Your task to perform on an android device: turn off improve location accuracy Image 0: 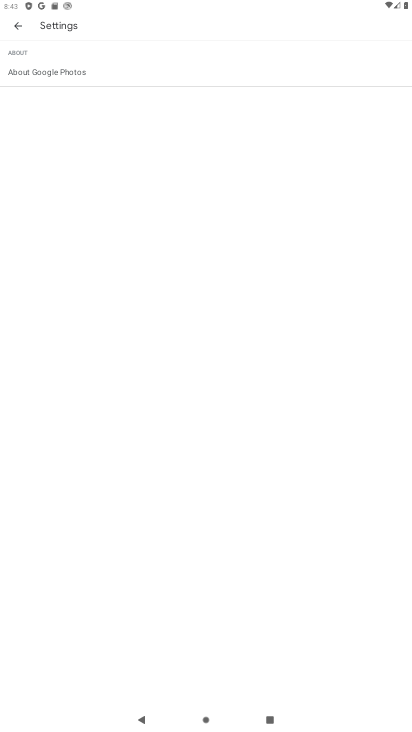
Step 0: press home button
Your task to perform on an android device: turn off improve location accuracy Image 1: 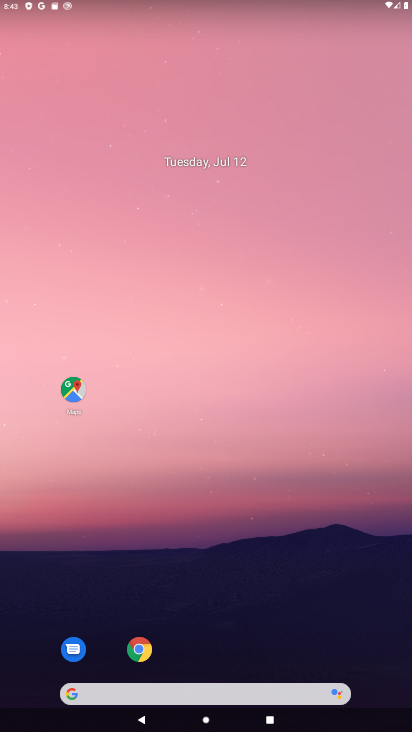
Step 1: click (280, 604)
Your task to perform on an android device: turn off improve location accuracy Image 2: 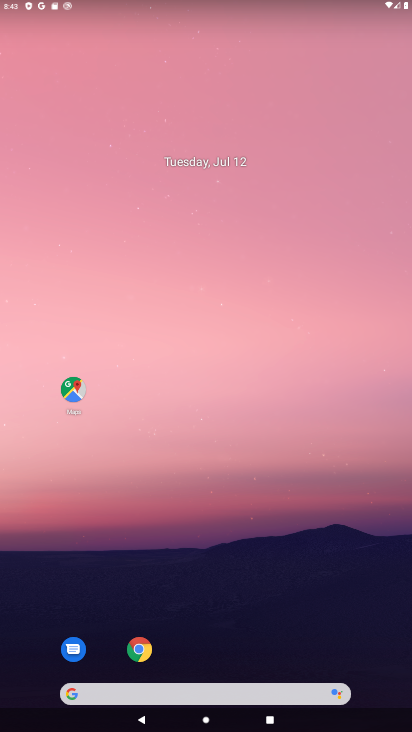
Step 2: drag from (280, 604) to (233, 221)
Your task to perform on an android device: turn off improve location accuracy Image 3: 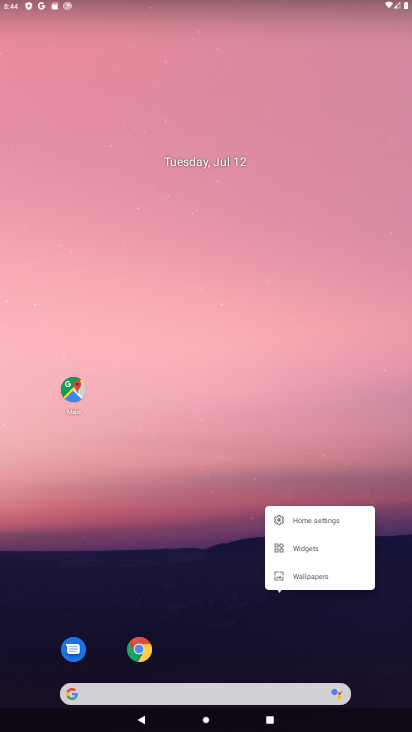
Step 3: click (189, 418)
Your task to perform on an android device: turn off improve location accuracy Image 4: 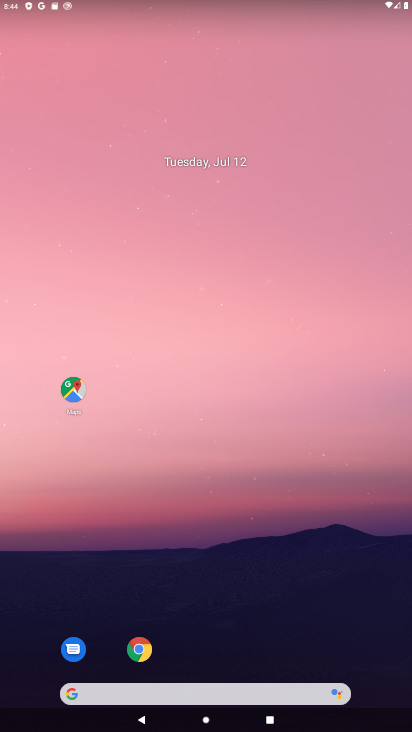
Step 4: drag from (224, 641) to (253, 409)
Your task to perform on an android device: turn off improve location accuracy Image 5: 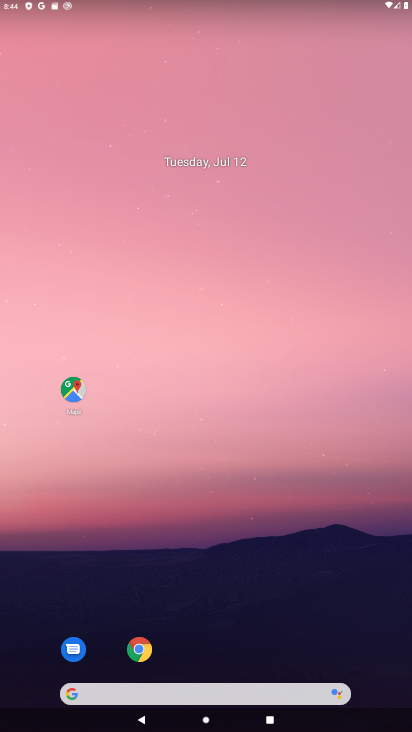
Step 5: drag from (233, 604) to (231, 296)
Your task to perform on an android device: turn off improve location accuracy Image 6: 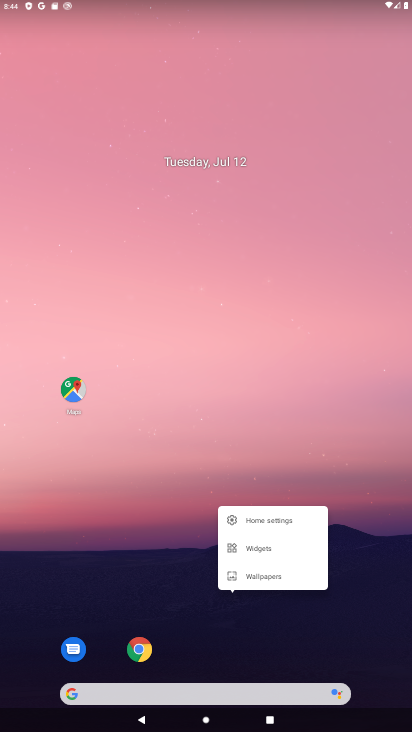
Step 6: click (178, 514)
Your task to perform on an android device: turn off improve location accuracy Image 7: 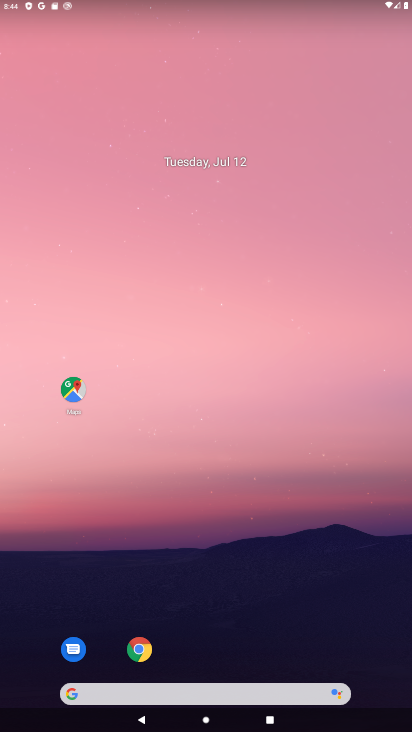
Step 7: drag from (241, 645) to (277, 330)
Your task to perform on an android device: turn off improve location accuracy Image 8: 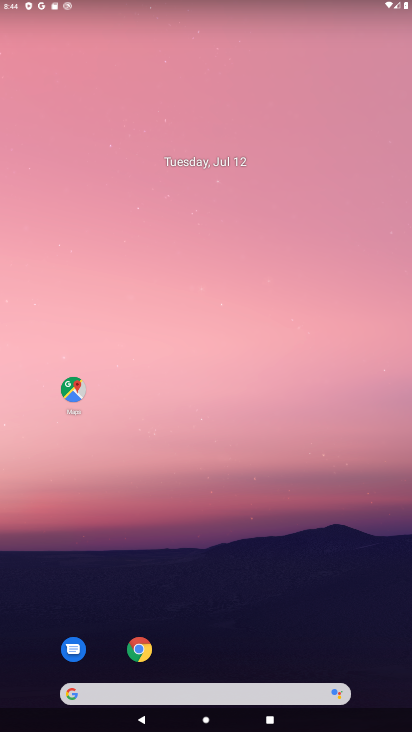
Step 8: drag from (259, 646) to (316, 125)
Your task to perform on an android device: turn off improve location accuracy Image 9: 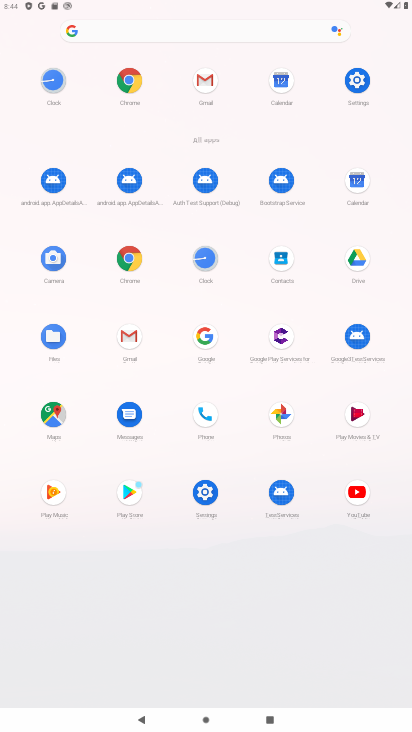
Step 9: click (348, 98)
Your task to perform on an android device: turn off improve location accuracy Image 10: 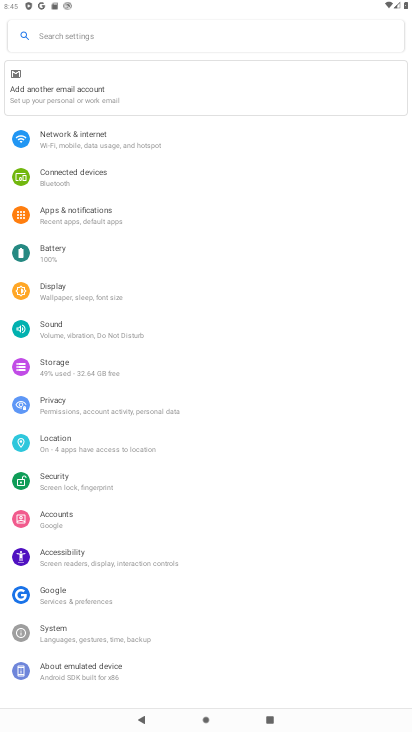
Step 10: click (97, 442)
Your task to perform on an android device: turn off improve location accuracy Image 11: 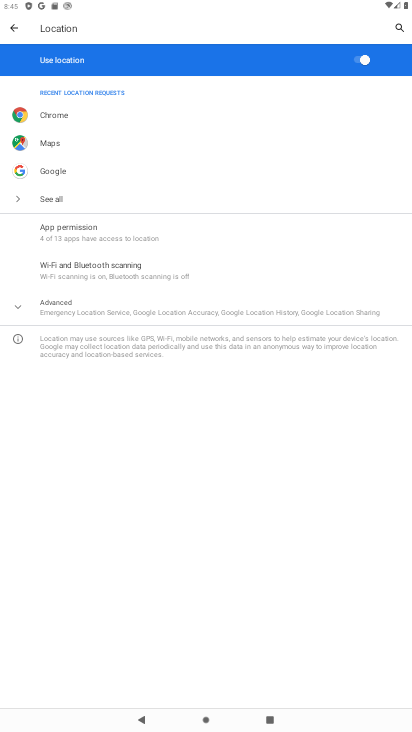
Step 11: click (78, 302)
Your task to perform on an android device: turn off improve location accuracy Image 12: 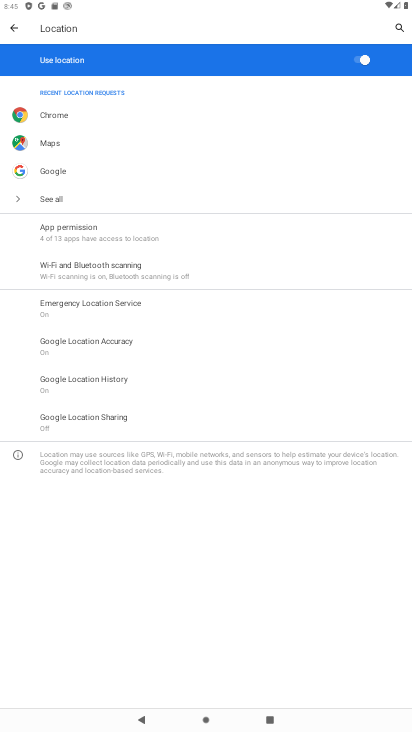
Step 12: click (110, 354)
Your task to perform on an android device: turn off improve location accuracy Image 13: 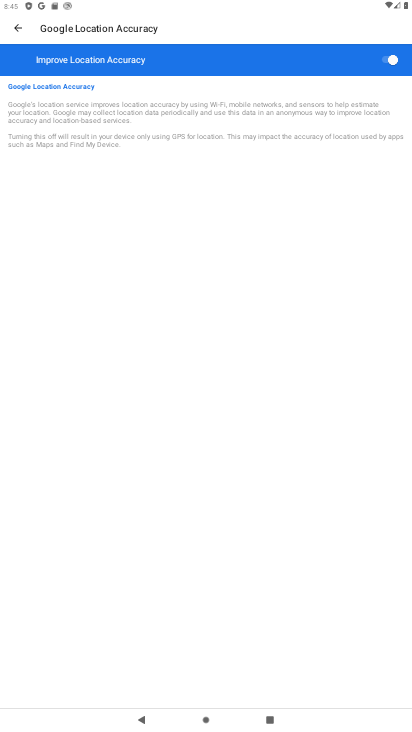
Step 13: click (385, 62)
Your task to perform on an android device: turn off improve location accuracy Image 14: 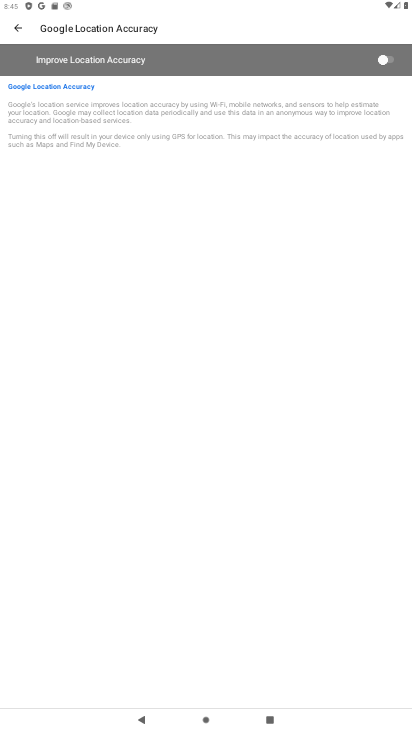
Step 14: task complete